Your task to perform on an android device: check data usage Image 0: 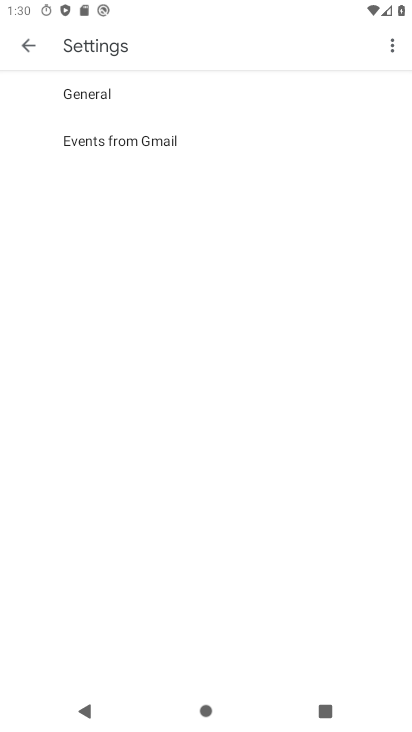
Step 0: press home button
Your task to perform on an android device: check data usage Image 1: 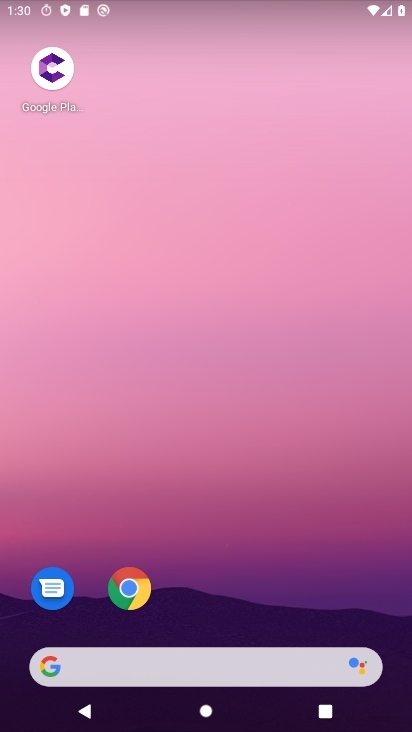
Step 1: drag from (193, 653) to (221, 170)
Your task to perform on an android device: check data usage Image 2: 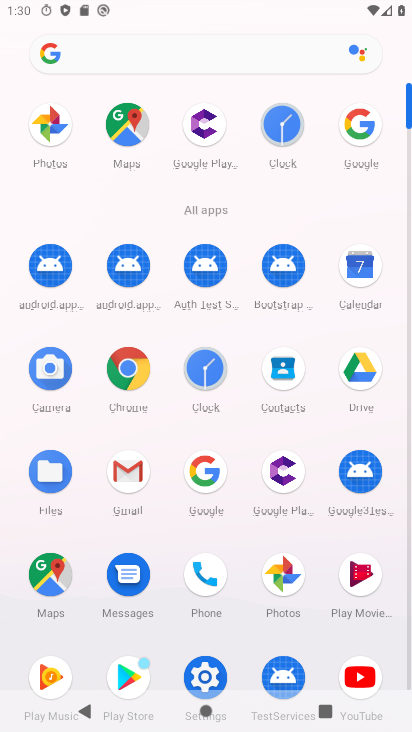
Step 2: click (200, 680)
Your task to perform on an android device: check data usage Image 3: 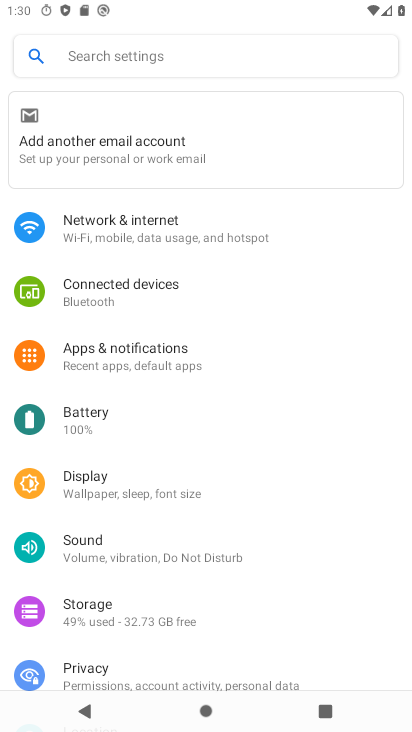
Step 3: click (149, 224)
Your task to perform on an android device: check data usage Image 4: 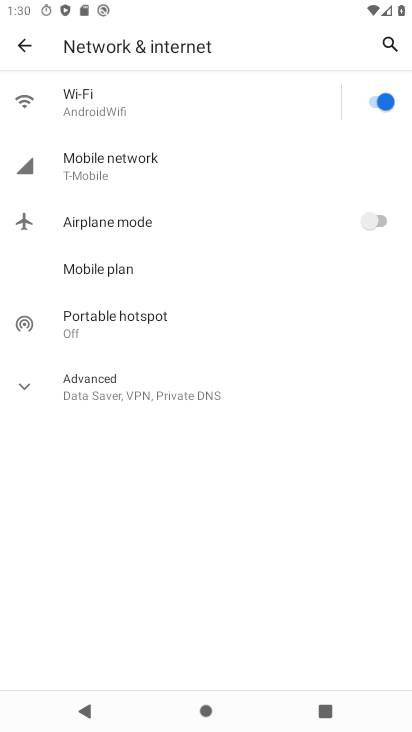
Step 4: click (97, 170)
Your task to perform on an android device: check data usage Image 5: 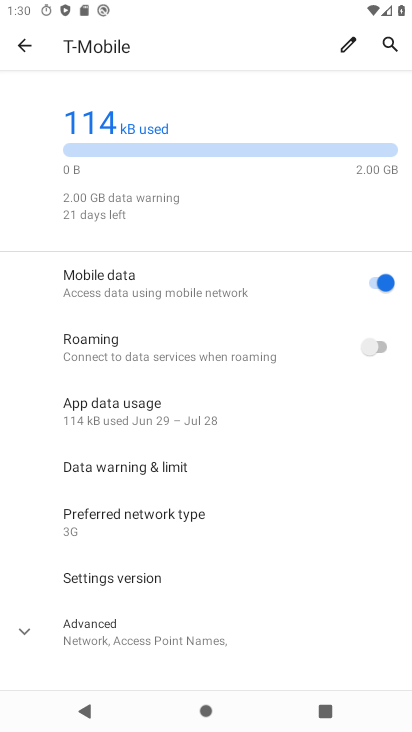
Step 5: task complete